Your task to perform on an android device: open a bookmark in the chrome app Image 0: 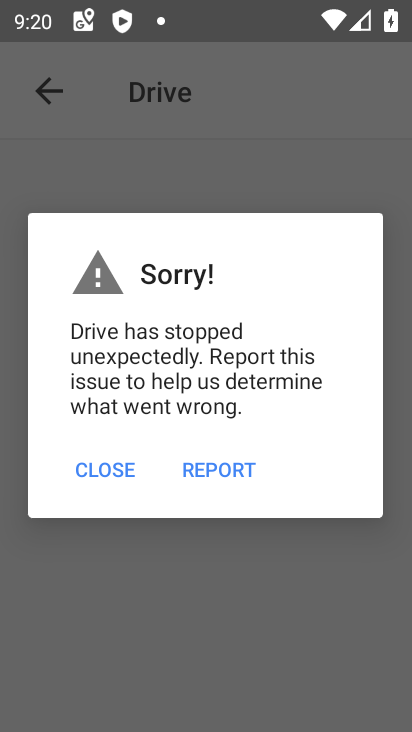
Step 0: press home button
Your task to perform on an android device: open a bookmark in the chrome app Image 1: 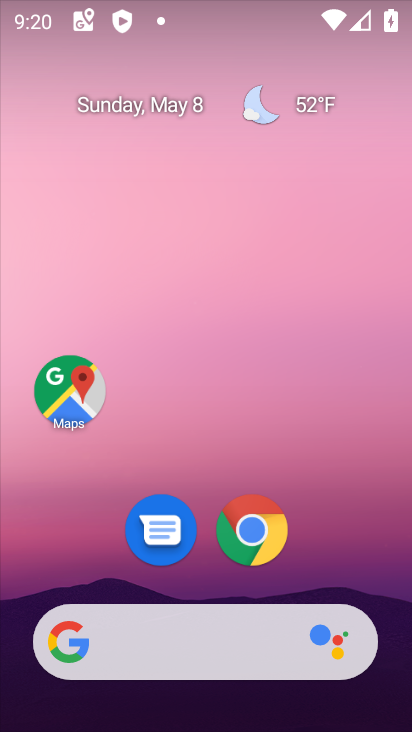
Step 1: click (242, 532)
Your task to perform on an android device: open a bookmark in the chrome app Image 2: 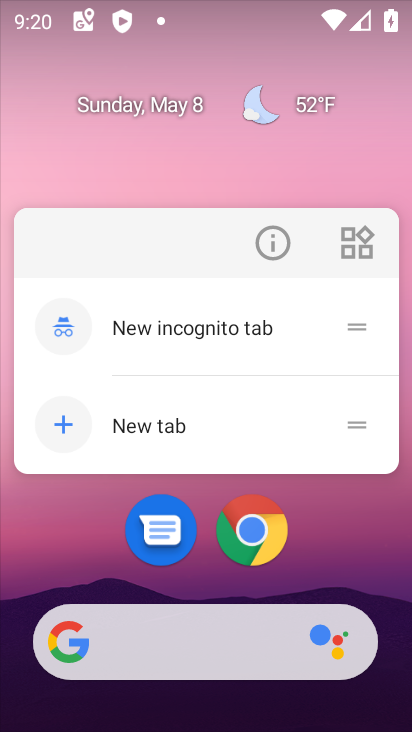
Step 2: click (263, 540)
Your task to perform on an android device: open a bookmark in the chrome app Image 3: 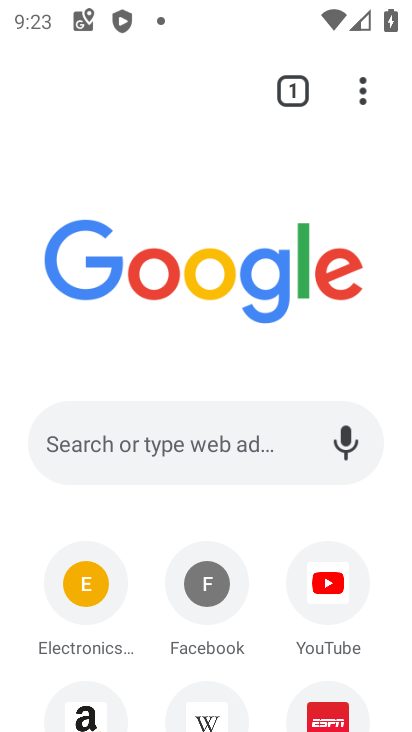
Step 3: click (366, 85)
Your task to perform on an android device: open a bookmark in the chrome app Image 4: 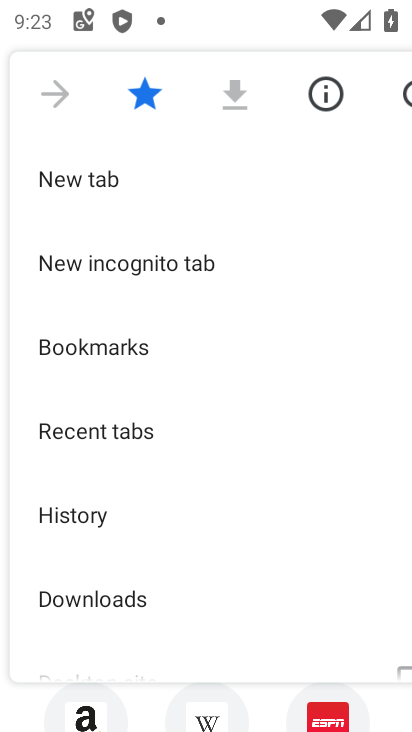
Step 4: click (107, 350)
Your task to perform on an android device: open a bookmark in the chrome app Image 5: 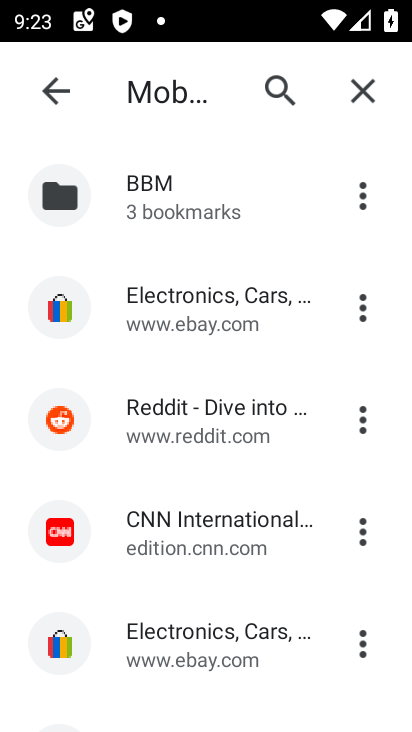
Step 5: click (195, 312)
Your task to perform on an android device: open a bookmark in the chrome app Image 6: 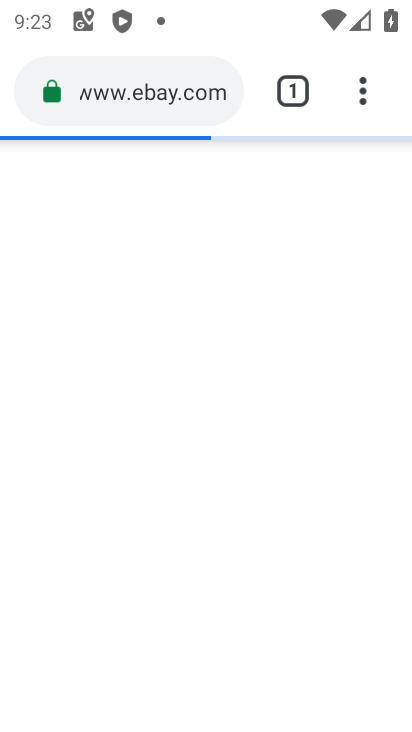
Step 6: task complete